Your task to perform on an android device: turn on translation in the chrome app Image 0: 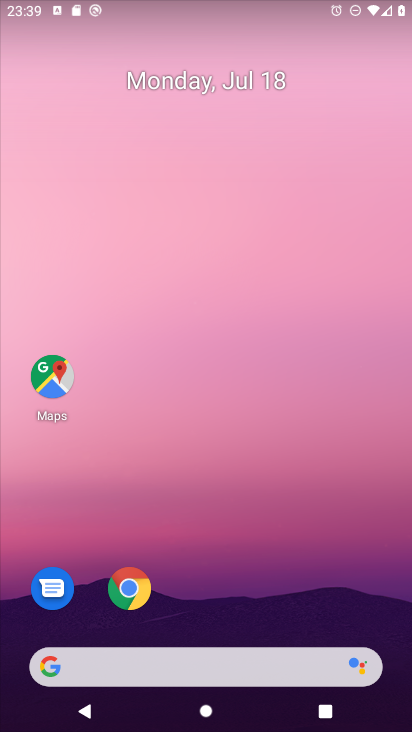
Step 0: click (129, 586)
Your task to perform on an android device: turn on translation in the chrome app Image 1: 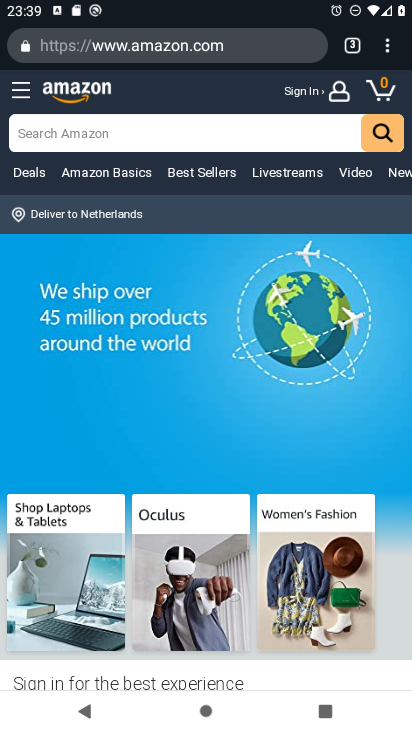
Step 1: click (388, 50)
Your task to perform on an android device: turn on translation in the chrome app Image 2: 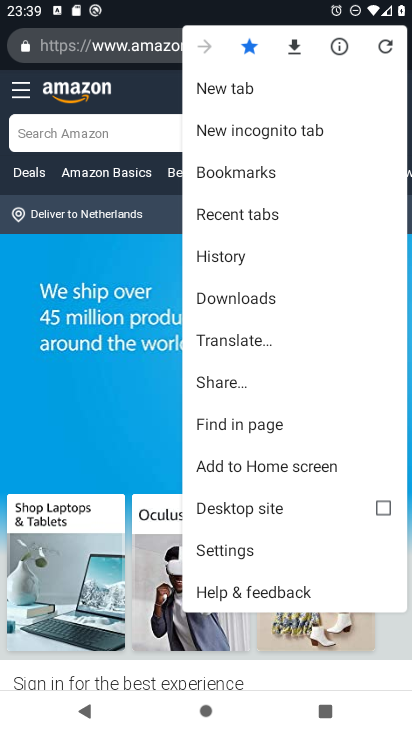
Step 2: click (218, 554)
Your task to perform on an android device: turn on translation in the chrome app Image 3: 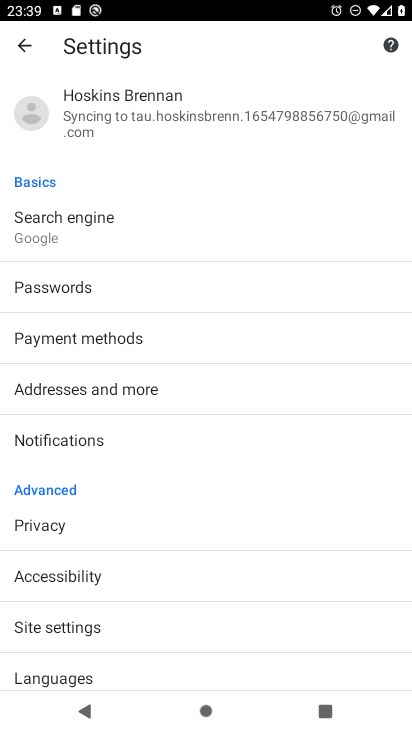
Step 3: drag from (156, 643) to (218, 304)
Your task to perform on an android device: turn on translation in the chrome app Image 4: 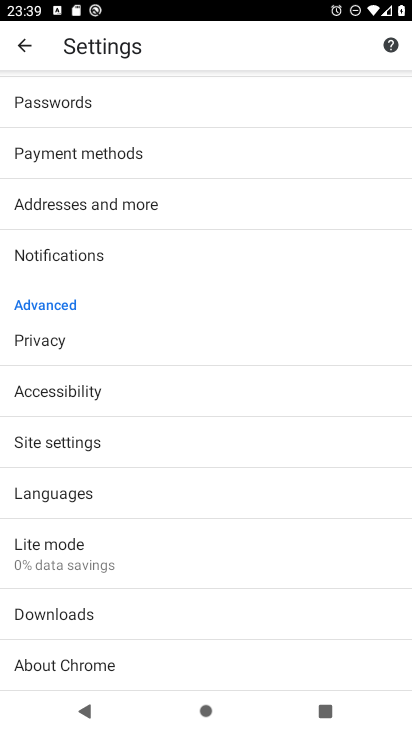
Step 4: click (50, 495)
Your task to perform on an android device: turn on translation in the chrome app Image 5: 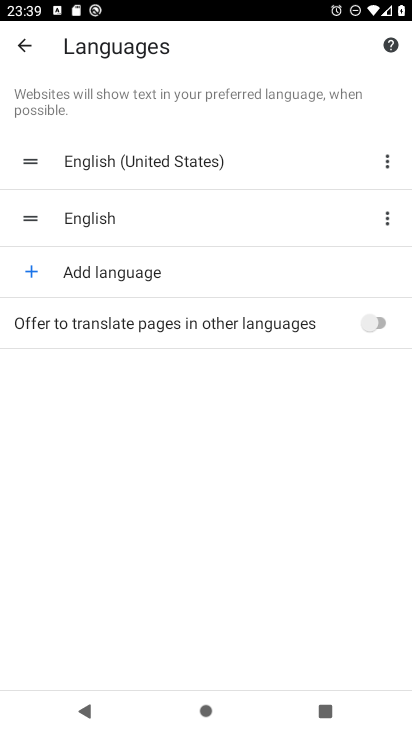
Step 5: click (383, 321)
Your task to perform on an android device: turn on translation in the chrome app Image 6: 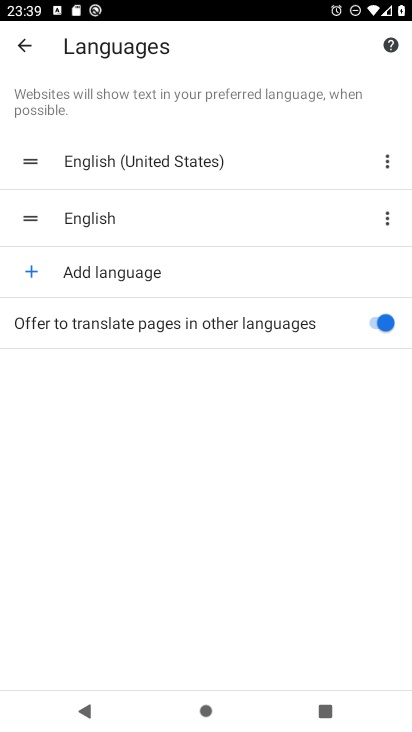
Step 6: task complete